Your task to perform on an android device: turn off data saver in the chrome app Image 0: 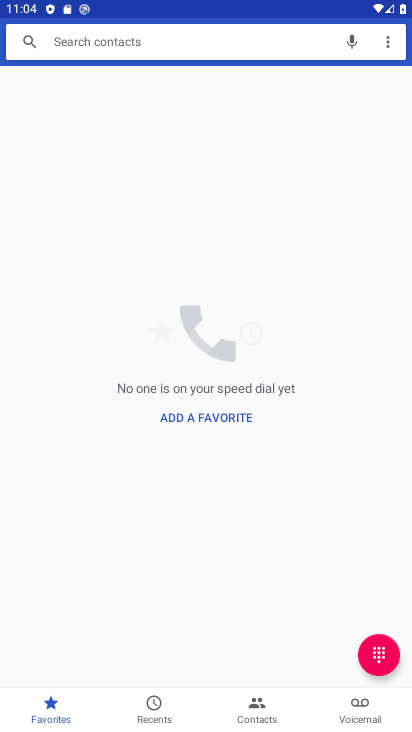
Step 0: press back button
Your task to perform on an android device: turn off data saver in the chrome app Image 1: 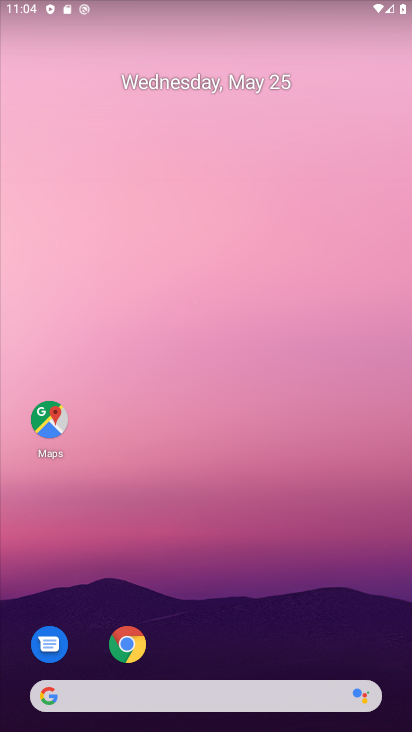
Step 1: click (127, 644)
Your task to perform on an android device: turn off data saver in the chrome app Image 2: 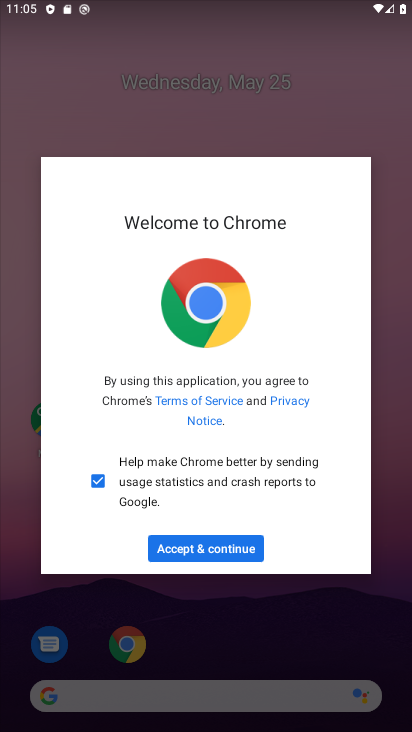
Step 2: click (201, 550)
Your task to perform on an android device: turn off data saver in the chrome app Image 3: 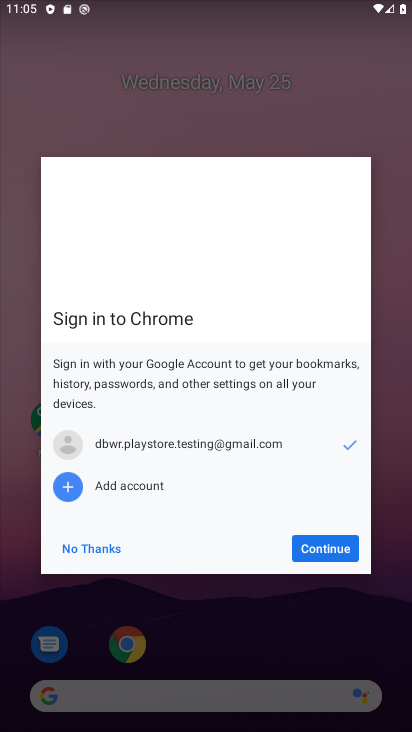
Step 3: click (325, 550)
Your task to perform on an android device: turn off data saver in the chrome app Image 4: 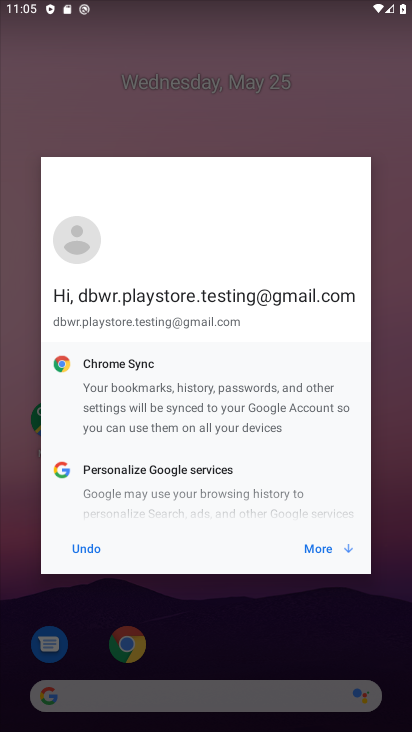
Step 4: click (325, 550)
Your task to perform on an android device: turn off data saver in the chrome app Image 5: 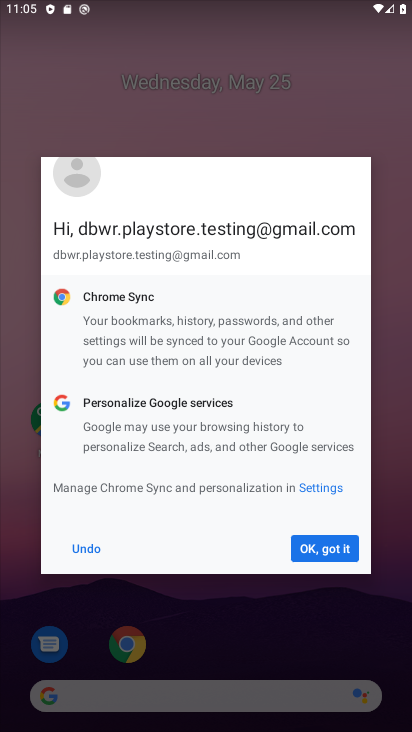
Step 5: click (325, 550)
Your task to perform on an android device: turn off data saver in the chrome app Image 6: 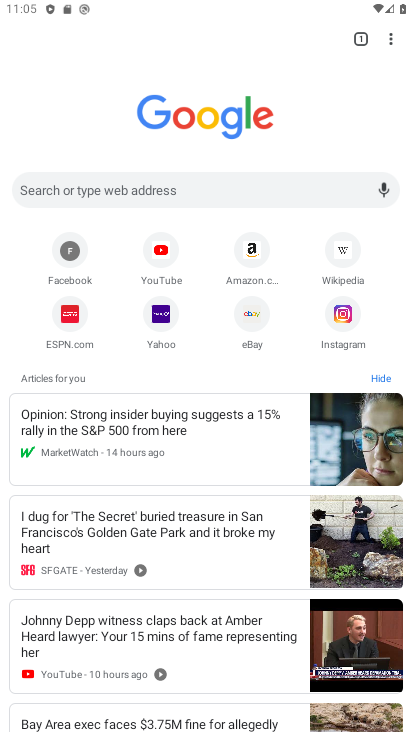
Step 6: click (390, 38)
Your task to perform on an android device: turn off data saver in the chrome app Image 7: 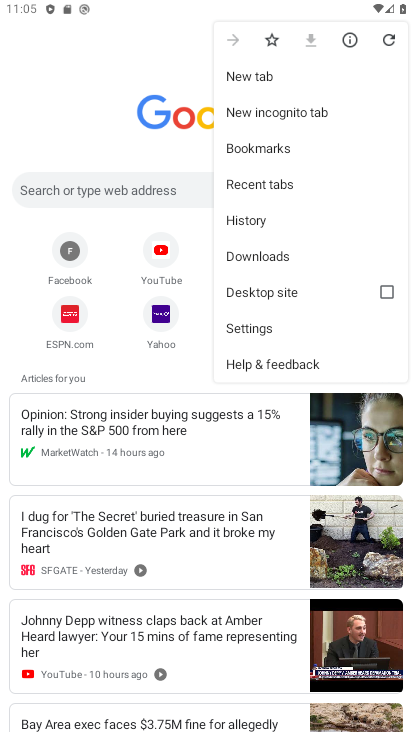
Step 7: click (254, 328)
Your task to perform on an android device: turn off data saver in the chrome app Image 8: 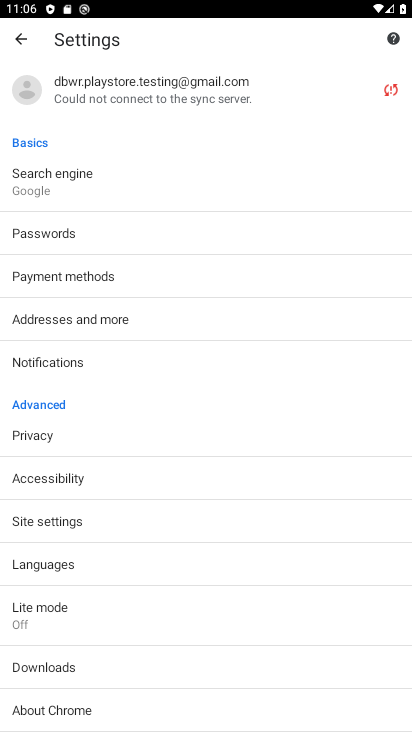
Step 8: click (55, 610)
Your task to perform on an android device: turn off data saver in the chrome app Image 9: 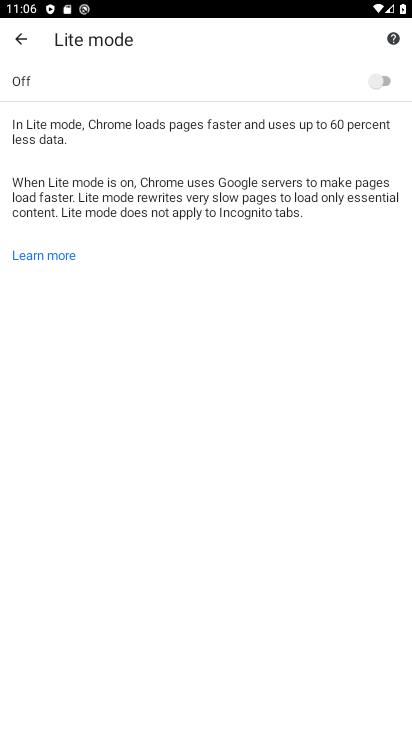
Step 9: task complete